Your task to perform on an android device: Open Amazon Image 0: 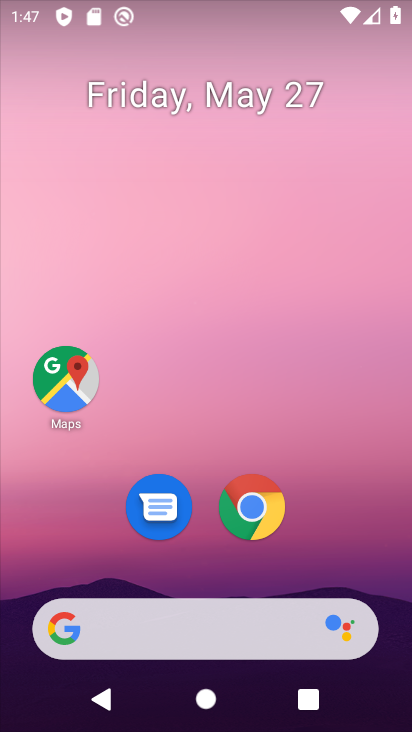
Step 0: drag from (200, 570) to (253, 203)
Your task to perform on an android device: Open Amazon Image 1: 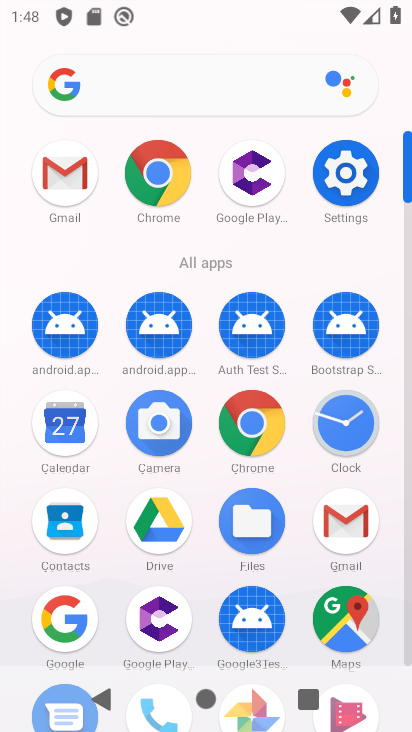
Step 1: click (205, 88)
Your task to perform on an android device: Open Amazon Image 2: 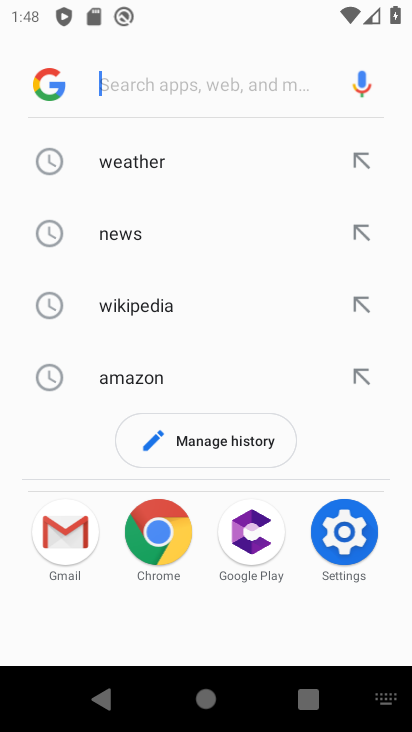
Step 2: click (139, 381)
Your task to perform on an android device: Open Amazon Image 3: 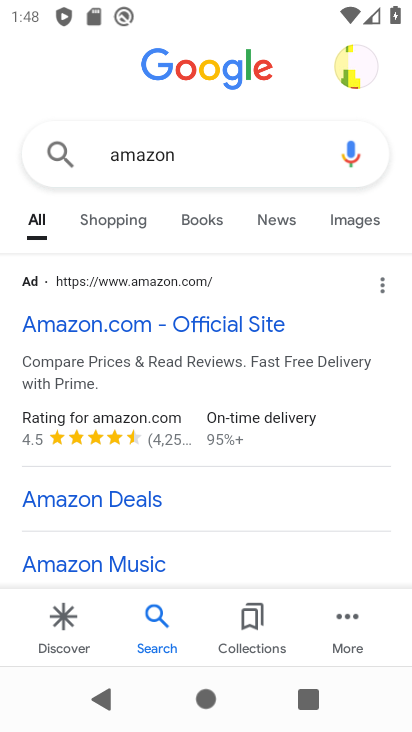
Step 3: click (95, 317)
Your task to perform on an android device: Open Amazon Image 4: 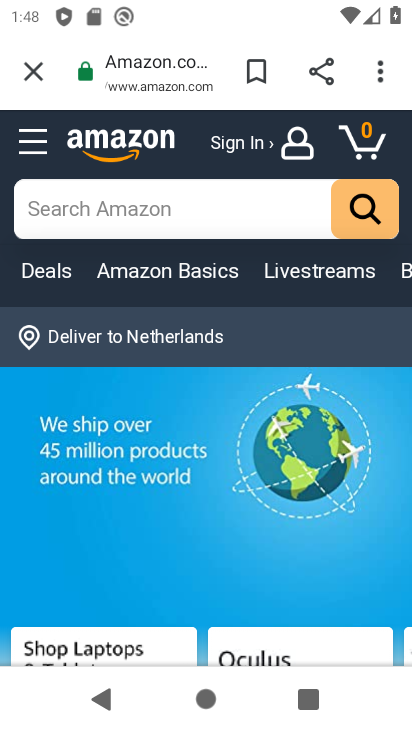
Step 4: task complete